Your task to perform on an android device: Search for seafood restaurants on Google Maps Image 0: 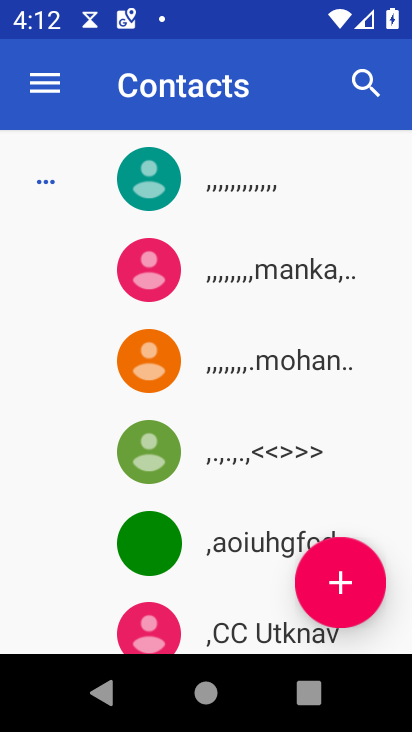
Step 0: press home button
Your task to perform on an android device: Search for seafood restaurants on Google Maps Image 1: 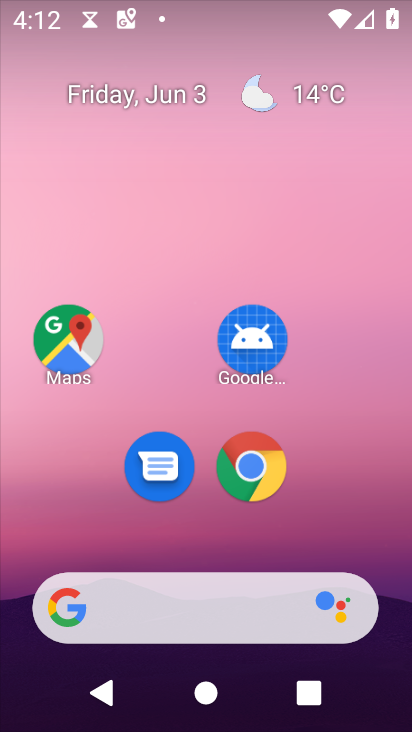
Step 1: click (66, 332)
Your task to perform on an android device: Search for seafood restaurants on Google Maps Image 2: 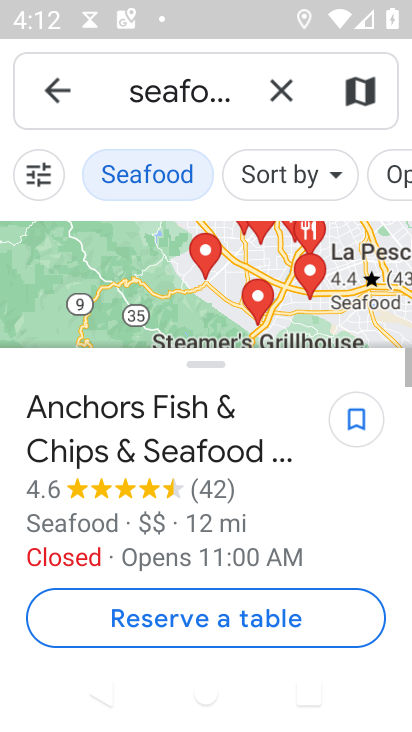
Step 2: task complete